Your task to perform on an android device: Clear the cart on ebay.com. Add "acer nitro" to the cart on ebay.com, then select checkout. Image 0: 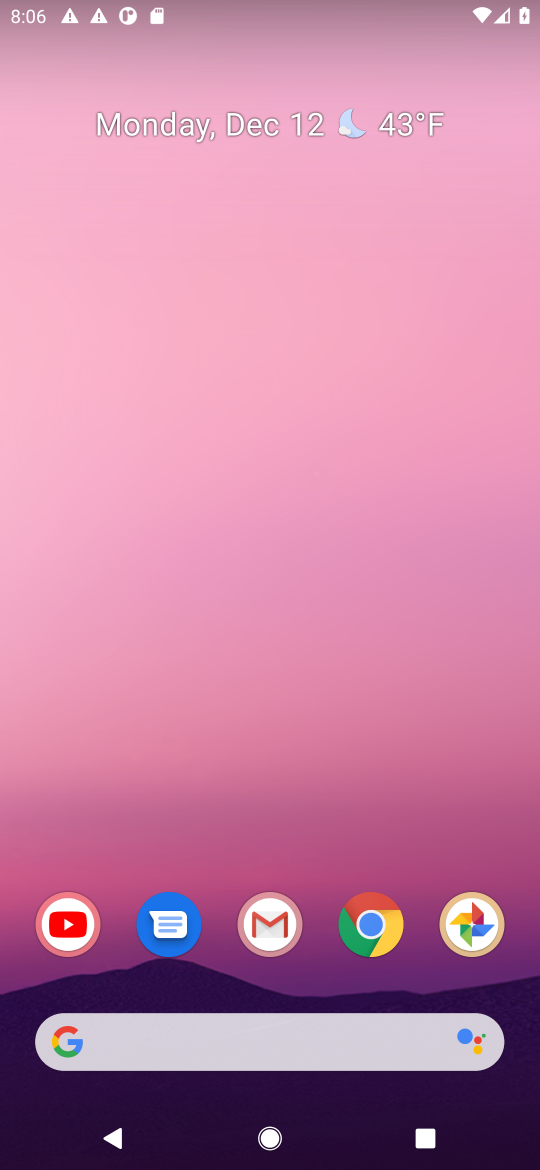
Step 0: drag from (275, 961) to (509, 34)
Your task to perform on an android device: Clear the cart on ebay.com. Add "acer nitro" to the cart on ebay.com, then select checkout. Image 1: 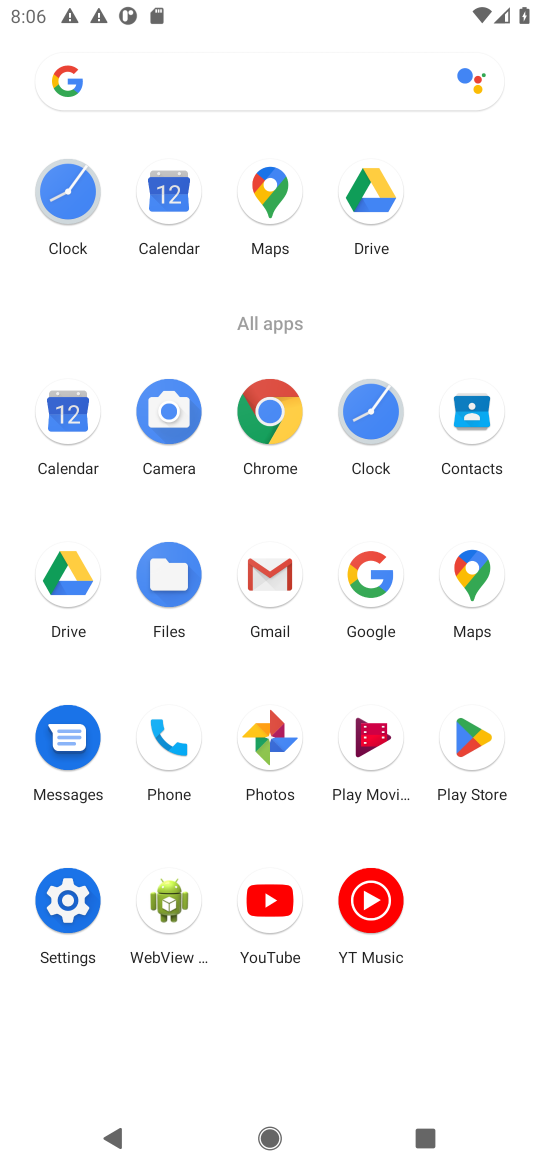
Step 1: click (384, 571)
Your task to perform on an android device: Clear the cart on ebay.com. Add "acer nitro" to the cart on ebay.com, then select checkout. Image 2: 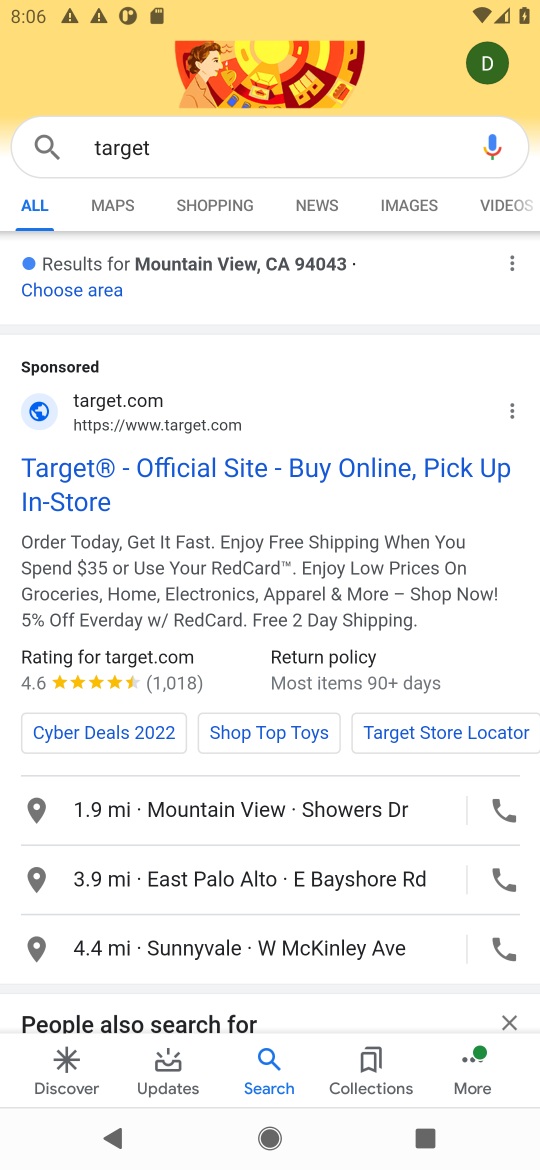
Step 2: click (252, 155)
Your task to perform on an android device: Clear the cart on ebay.com. Add "acer nitro" to the cart on ebay.com, then select checkout. Image 3: 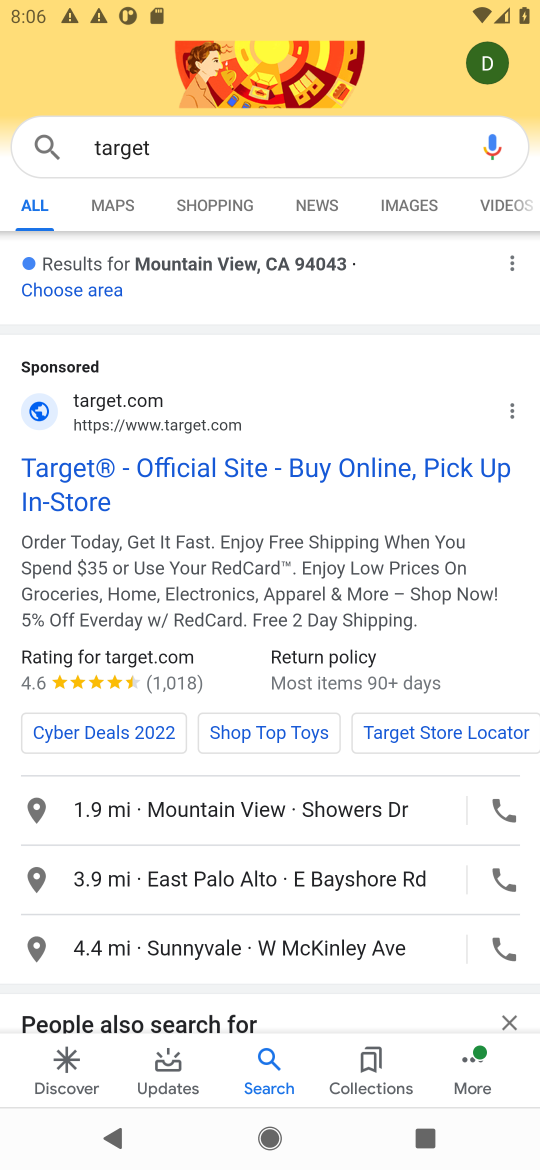
Step 3: click (252, 155)
Your task to perform on an android device: Clear the cart on ebay.com. Add "acer nitro" to the cart on ebay.com, then select checkout. Image 4: 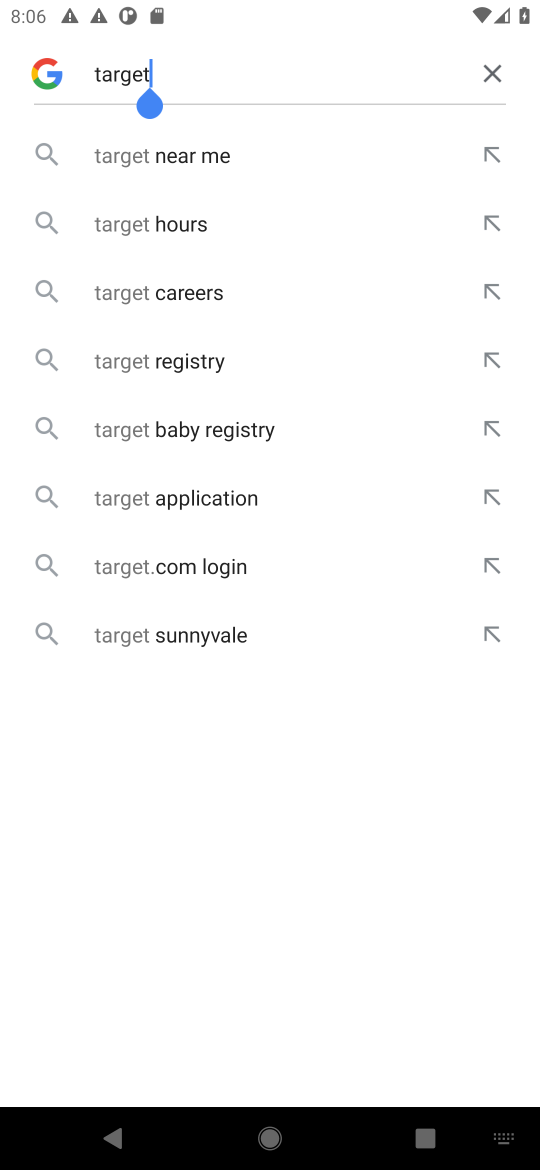
Step 4: click (489, 72)
Your task to perform on an android device: Clear the cart on ebay.com. Add "acer nitro" to the cart on ebay.com, then select checkout. Image 5: 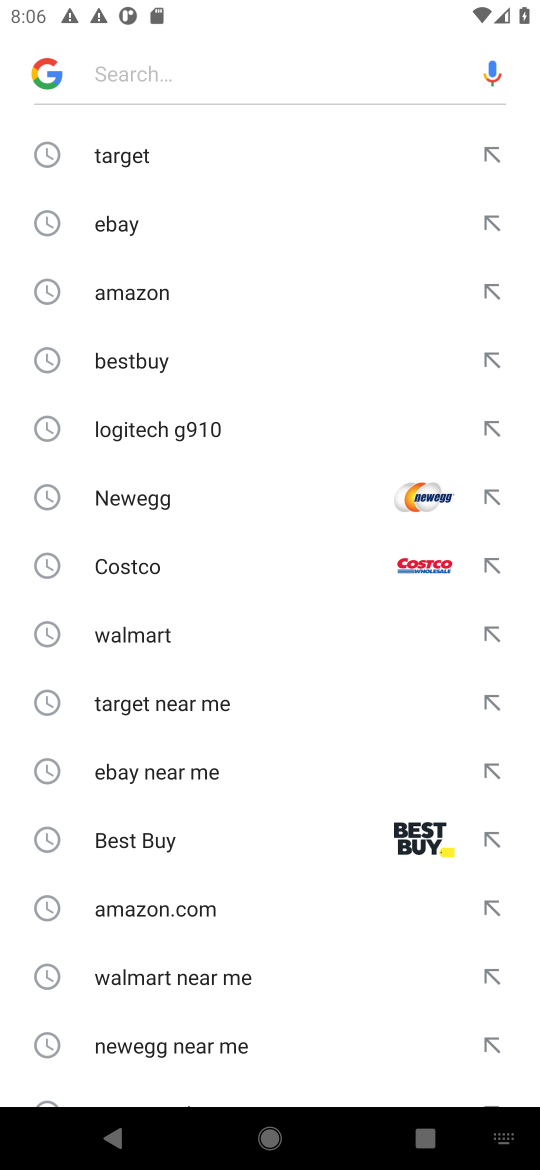
Step 5: click (114, 218)
Your task to perform on an android device: Clear the cart on ebay.com. Add "acer nitro" to the cart on ebay.com, then select checkout. Image 6: 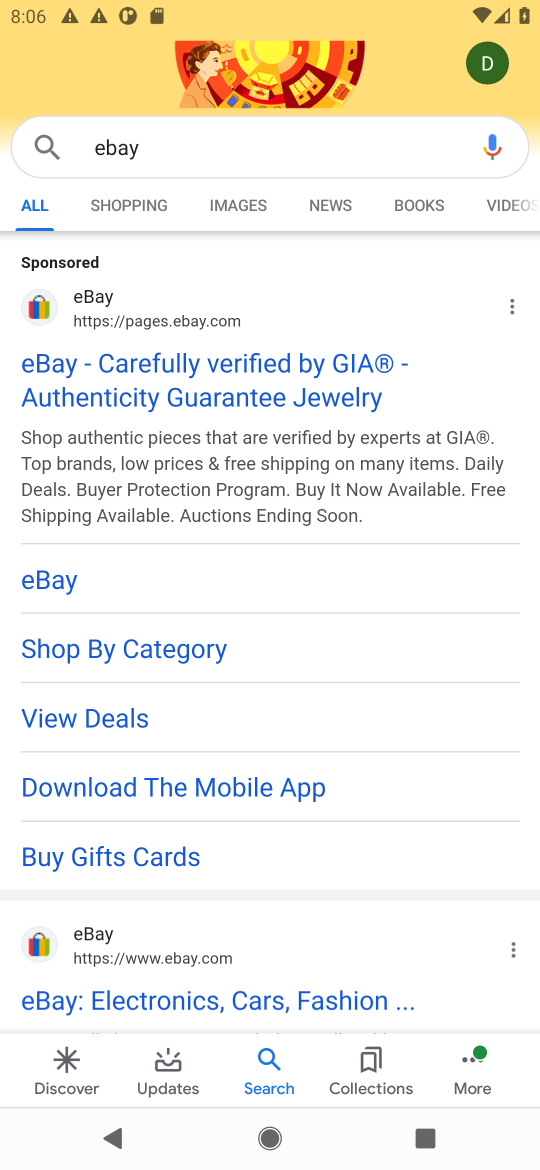
Step 6: click (82, 374)
Your task to perform on an android device: Clear the cart on ebay.com. Add "acer nitro" to the cart on ebay.com, then select checkout. Image 7: 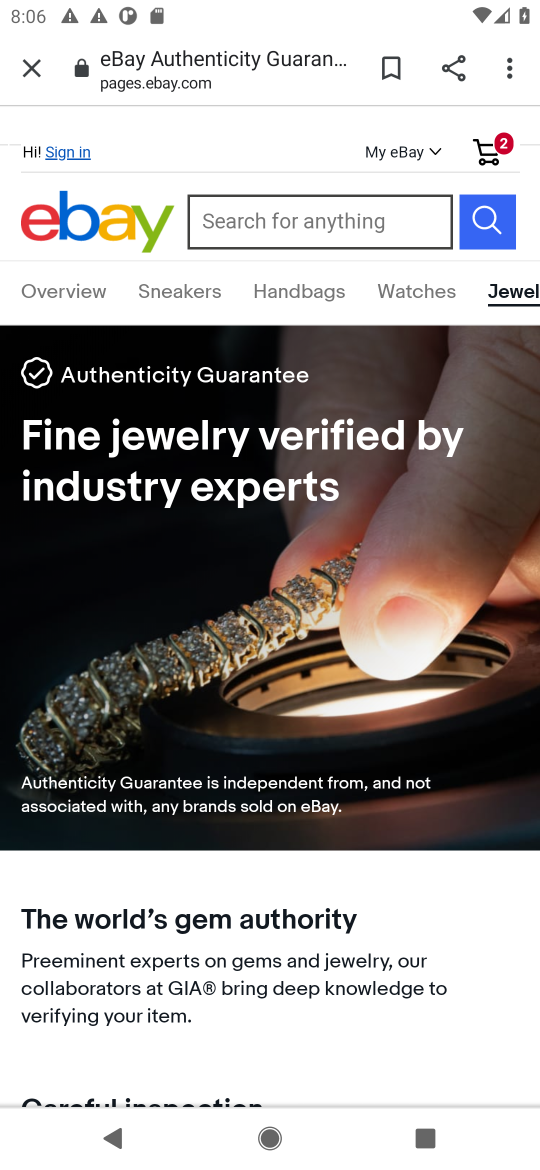
Step 7: click (478, 154)
Your task to perform on an android device: Clear the cart on ebay.com. Add "acer nitro" to the cart on ebay.com, then select checkout. Image 8: 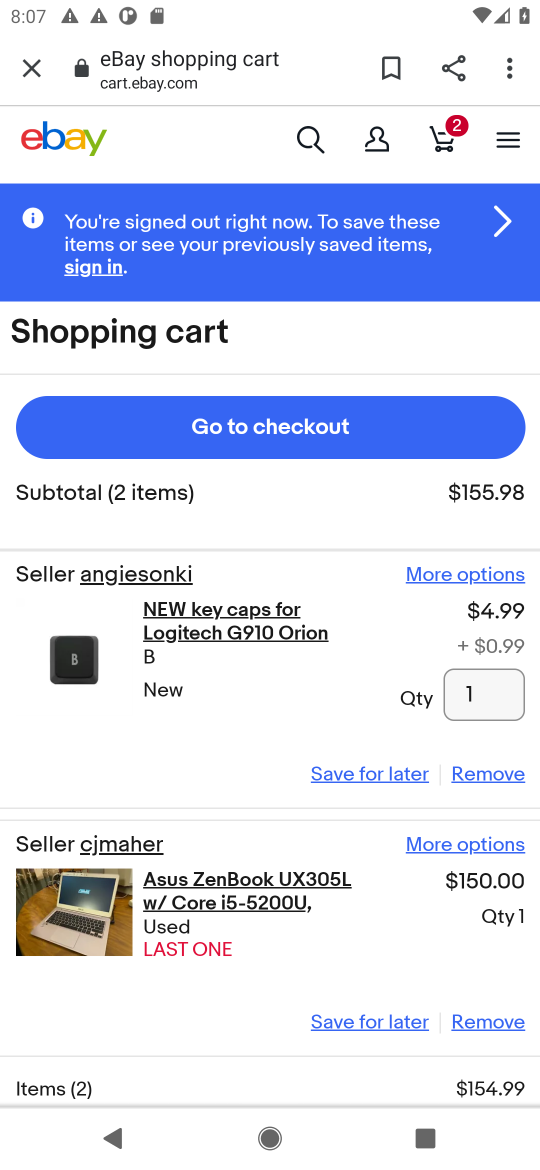
Step 8: click (461, 771)
Your task to perform on an android device: Clear the cart on ebay.com. Add "acer nitro" to the cart on ebay.com, then select checkout. Image 9: 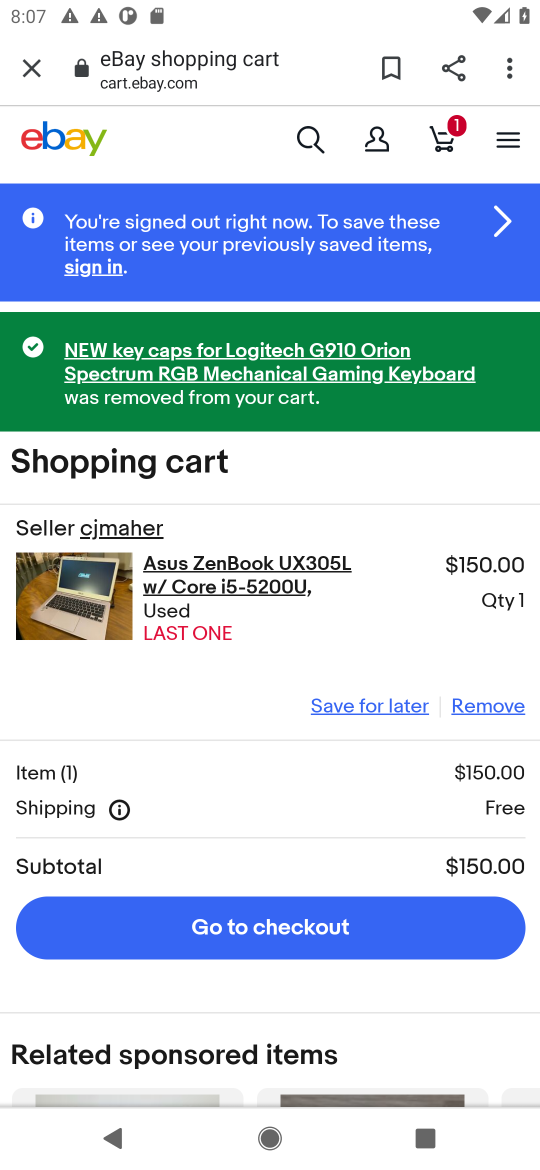
Step 9: click (486, 698)
Your task to perform on an android device: Clear the cart on ebay.com. Add "acer nitro" to the cart on ebay.com, then select checkout. Image 10: 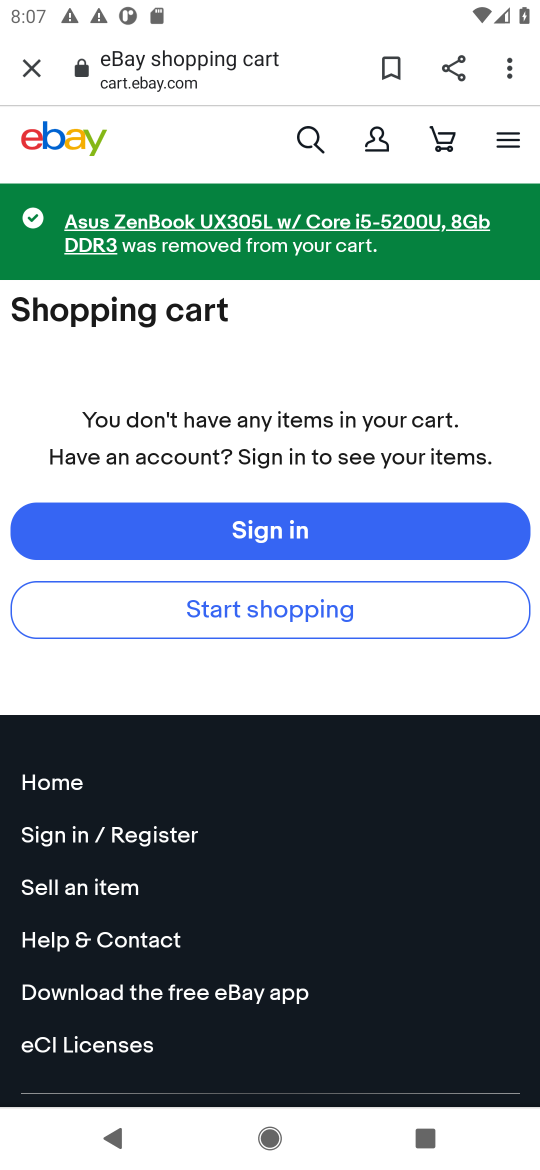
Step 10: click (308, 149)
Your task to perform on an android device: Clear the cart on ebay.com. Add "acer nitro" to the cart on ebay.com, then select checkout. Image 11: 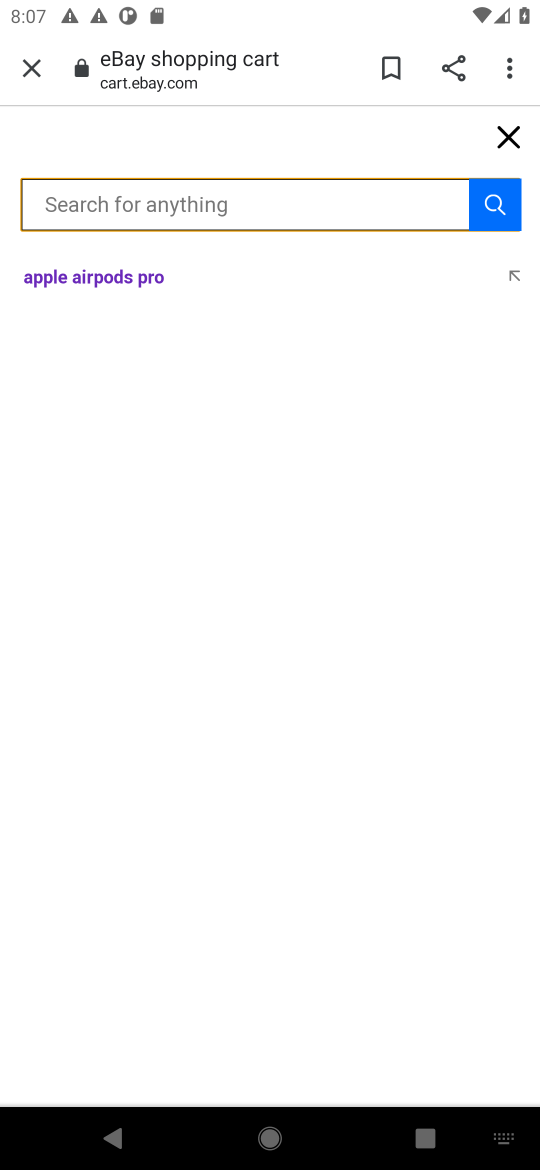
Step 11: click (165, 186)
Your task to perform on an android device: Clear the cart on ebay.com. Add "acer nitro" to the cart on ebay.com, then select checkout. Image 12: 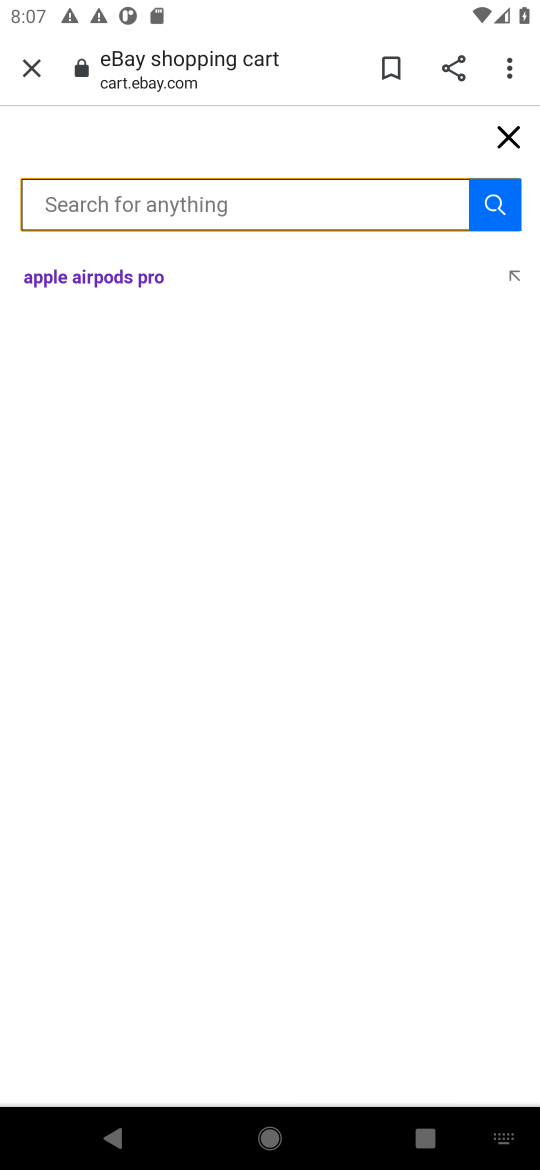
Step 12: type "acer nitro""
Your task to perform on an android device: Clear the cart on ebay.com. Add "acer nitro" to the cart on ebay.com, then select checkout. Image 13: 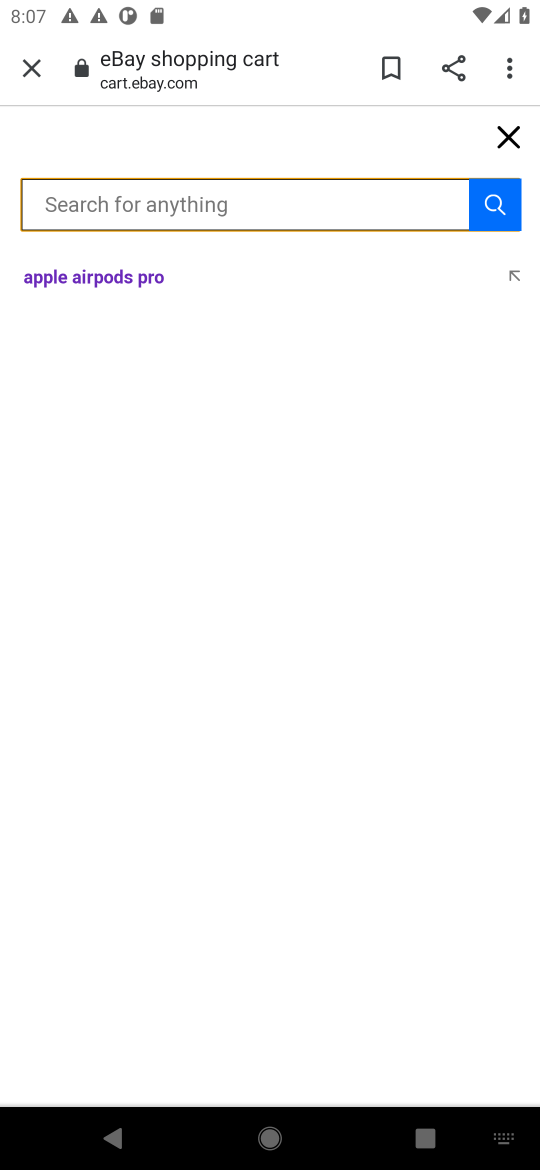
Step 13: click (349, 205)
Your task to perform on an android device: Clear the cart on ebay.com. Add "acer nitro" to the cart on ebay.com, then select checkout. Image 14: 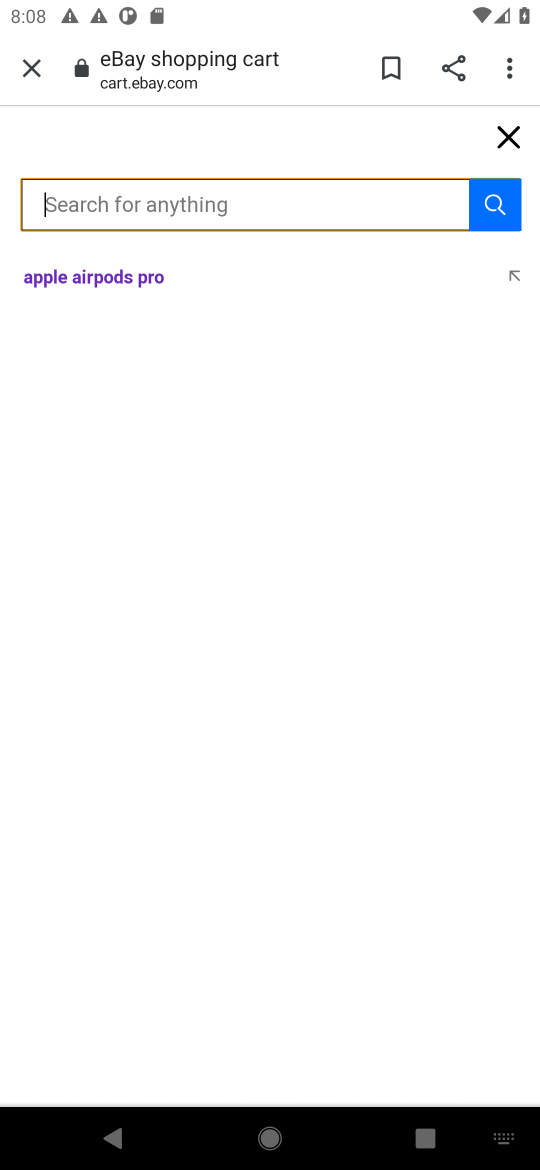
Step 14: type "acer nitro"
Your task to perform on an android device: Clear the cart on ebay.com. Add "acer nitro" to the cart on ebay.com, then select checkout. Image 15: 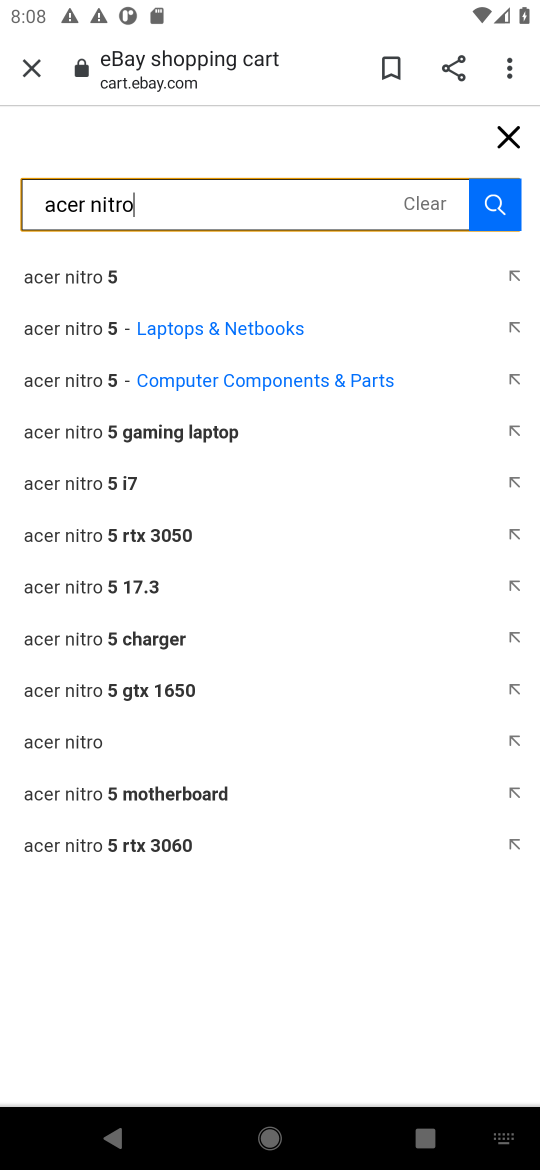
Step 15: click (50, 742)
Your task to perform on an android device: Clear the cart on ebay.com. Add "acer nitro" to the cart on ebay.com, then select checkout. Image 16: 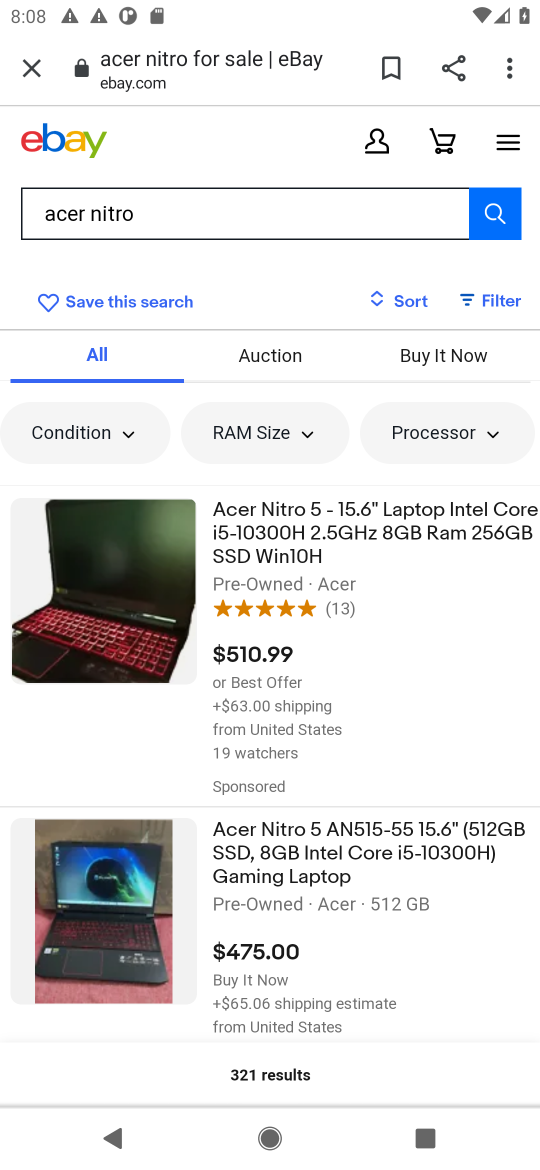
Step 16: click (248, 534)
Your task to perform on an android device: Clear the cart on ebay.com. Add "acer nitro" to the cart on ebay.com, then select checkout. Image 17: 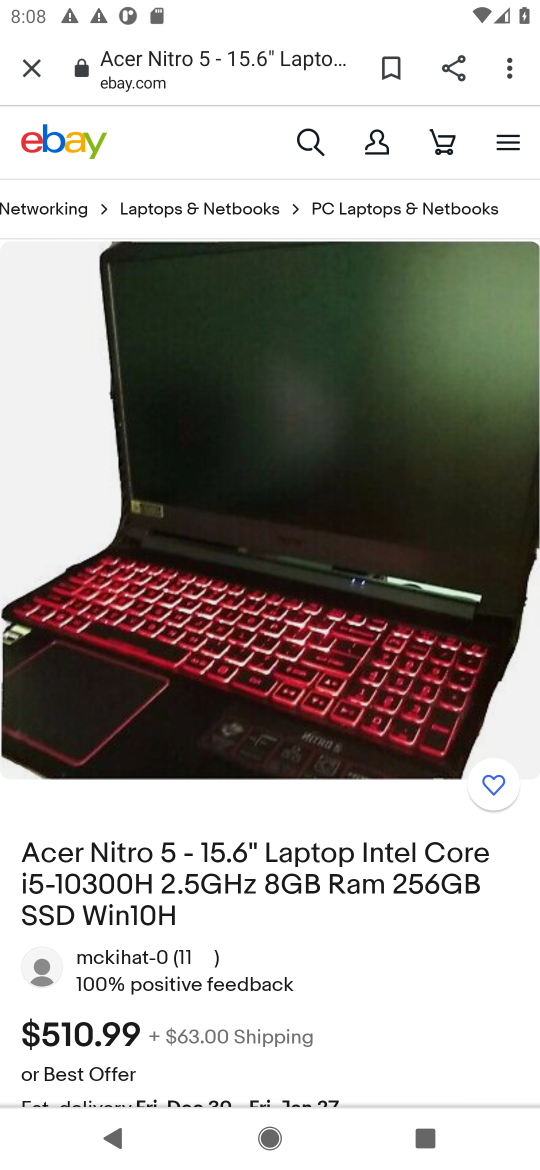
Step 17: drag from (282, 908) to (313, 691)
Your task to perform on an android device: Clear the cart on ebay.com. Add "acer nitro" to the cart on ebay.com, then select checkout. Image 18: 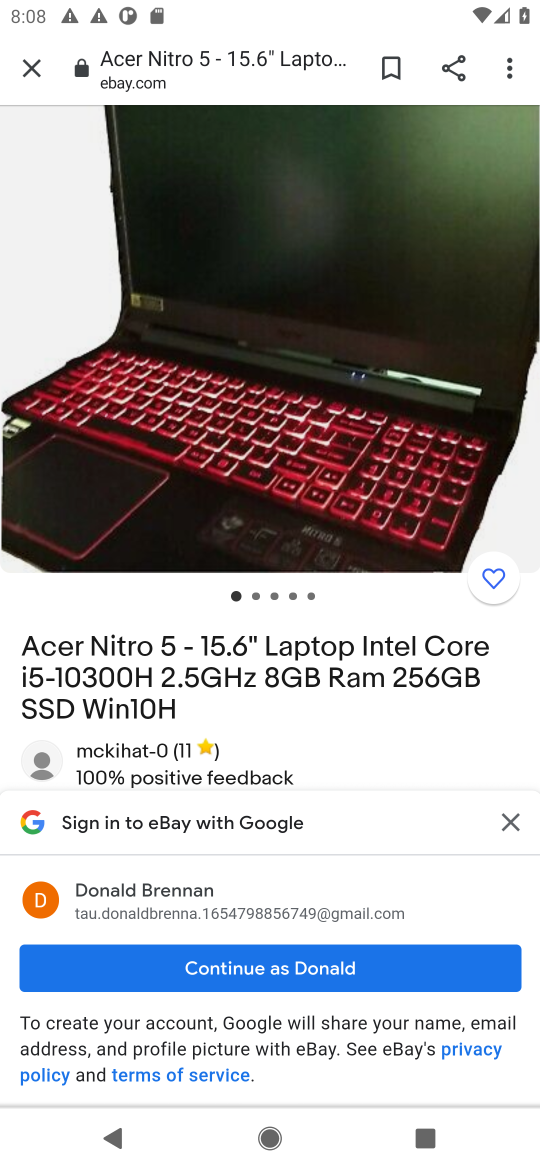
Step 18: click (511, 808)
Your task to perform on an android device: Clear the cart on ebay.com. Add "acer nitro" to the cart on ebay.com, then select checkout. Image 19: 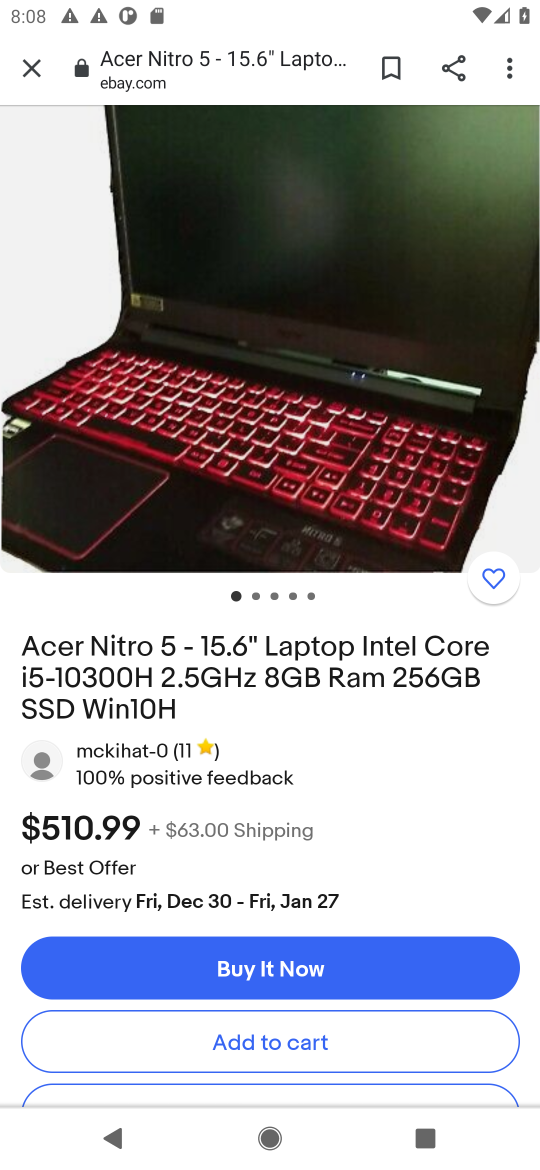
Step 19: click (228, 1043)
Your task to perform on an android device: Clear the cart on ebay.com. Add "acer nitro" to the cart on ebay.com, then select checkout. Image 20: 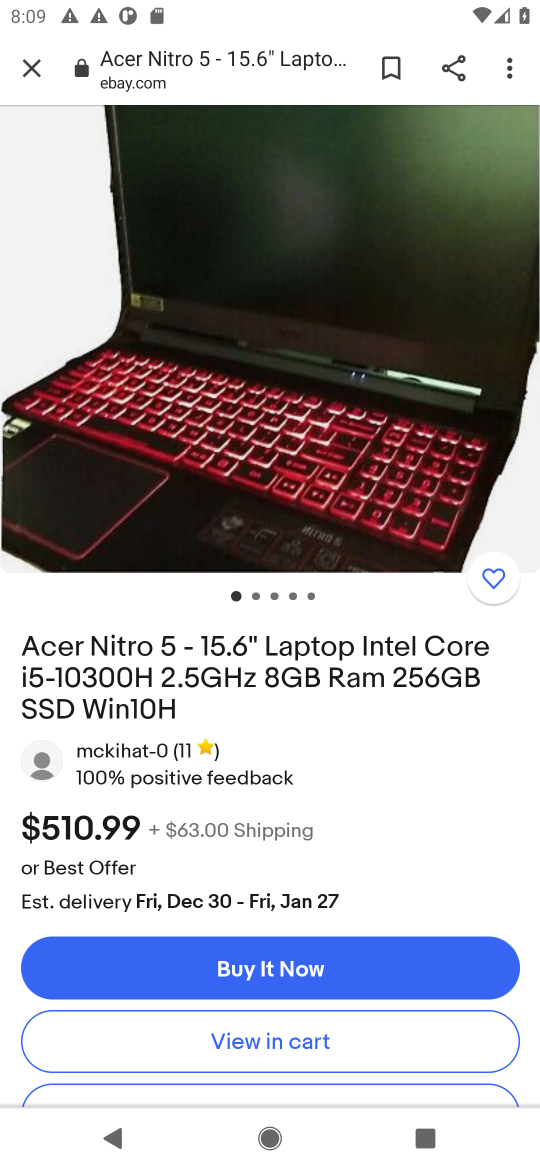
Step 20: click (228, 1043)
Your task to perform on an android device: Clear the cart on ebay.com. Add "acer nitro" to the cart on ebay.com, then select checkout. Image 21: 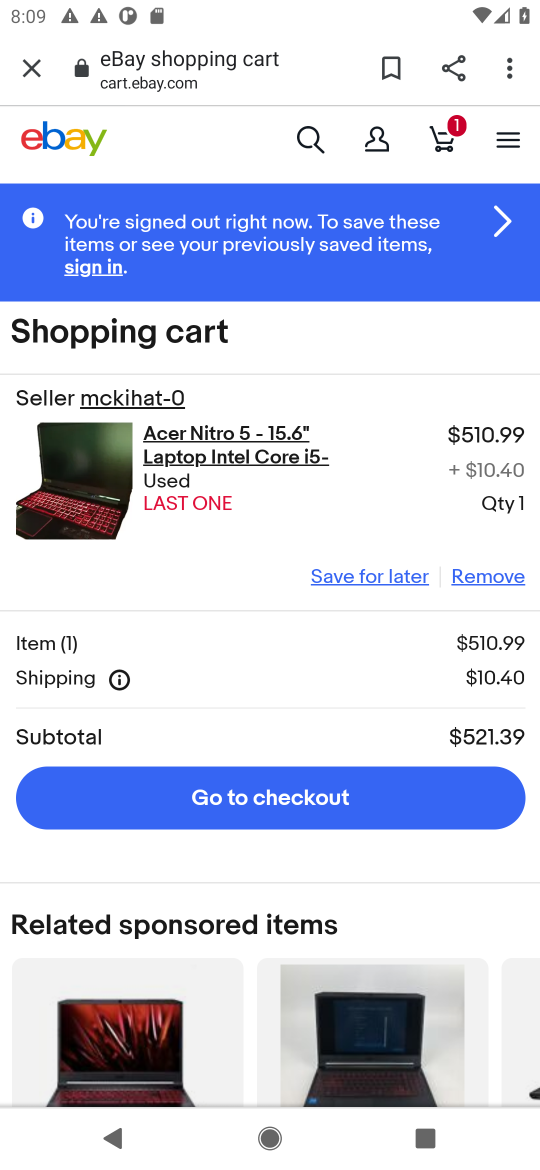
Step 21: click (260, 796)
Your task to perform on an android device: Clear the cart on ebay.com. Add "acer nitro" to the cart on ebay.com, then select checkout. Image 22: 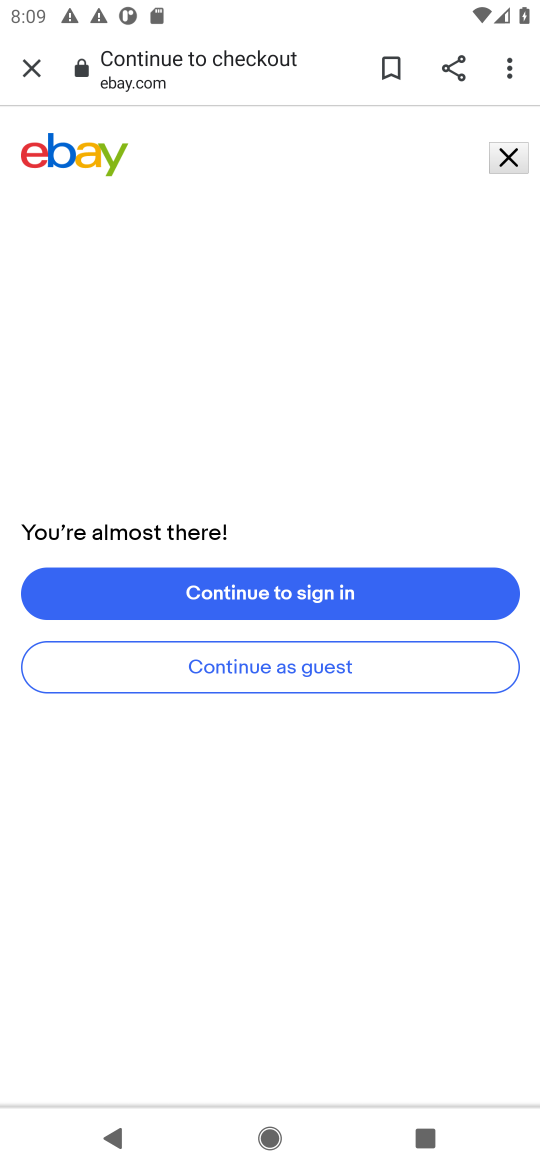
Step 22: click (260, 671)
Your task to perform on an android device: Clear the cart on ebay.com. Add "acer nitro" to the cart on ebay.com, then select checkout. Image 23: 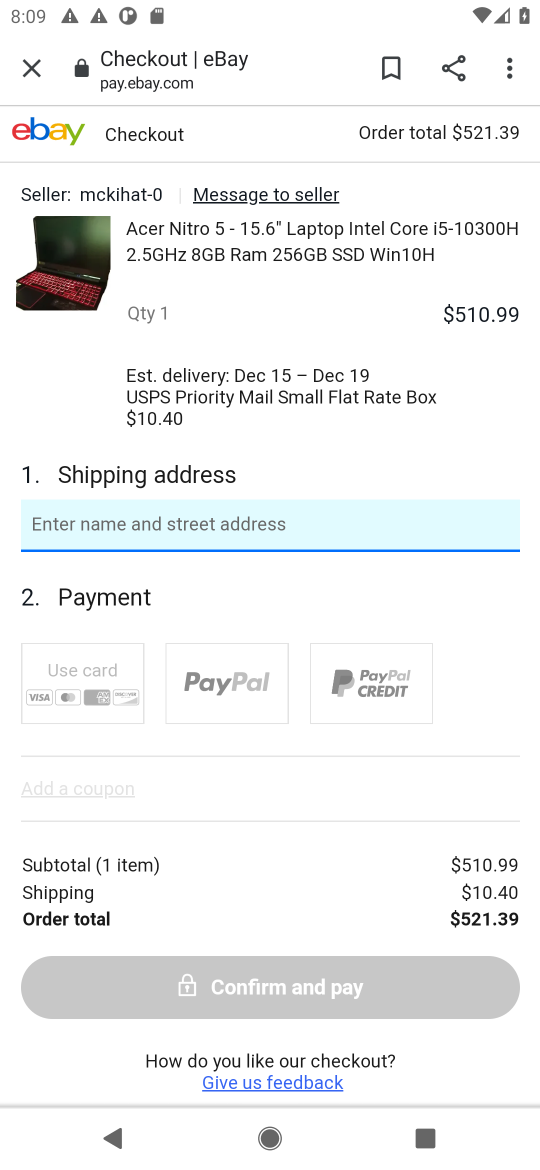
Step 23: task complete